Your task to perform on an android device: Open the calendar app, open the side menu, and click the "Day" option Image 0: 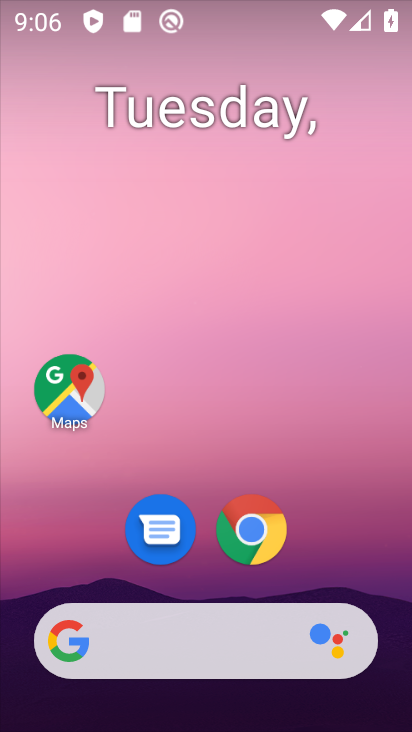
Step 0: drag from (334, 584) to (355, 48)
Your task to perform on an android device: Open the calendar app, open the side menu, and click the "Day" option Image 1: 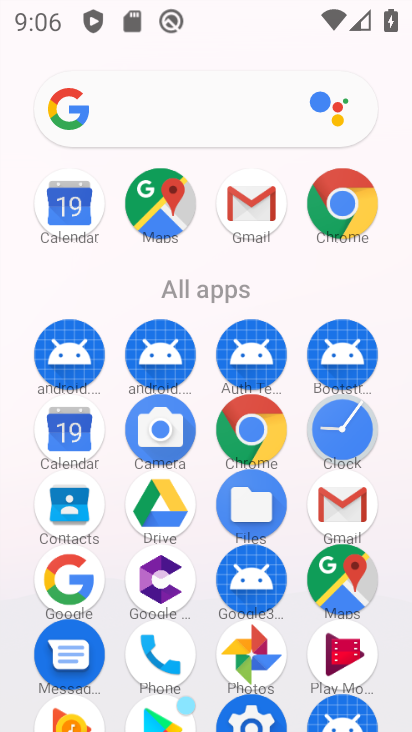
Step 1: click (66, 422)
Your task to perform on an android device: Open the calendar app, open the side menu, and click the "Day" option Image 2: 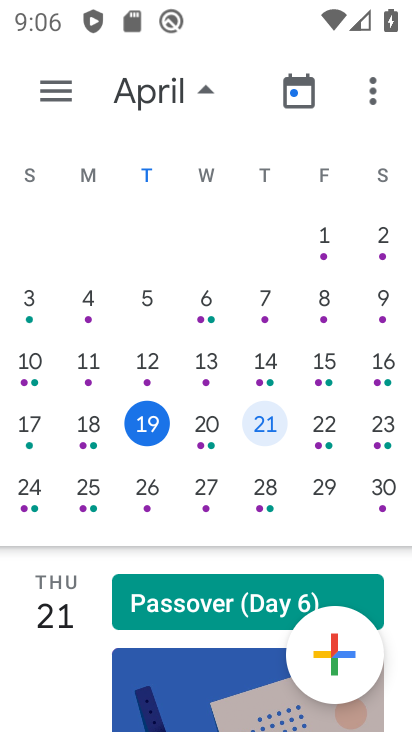
Step 2: click (67, 87)
Your task to perform on an android device: Open the calendar app, open the side menu, and click the "Day" option Image 3: 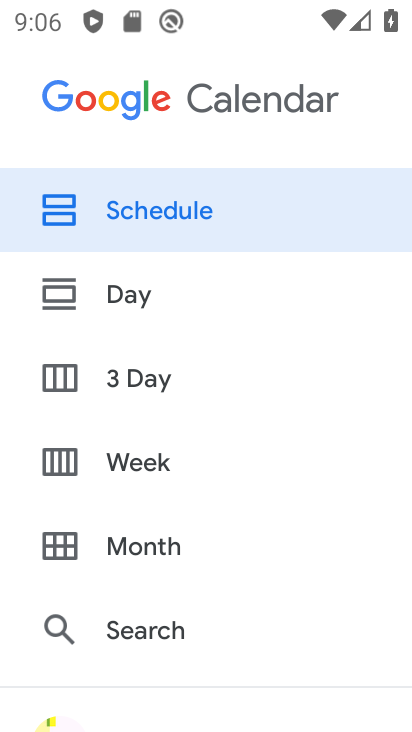
Step 3: click (152, 309)
Your task to perform on an android device: Open the calendar app, open the side menu, and click the "Day" option Image 4: 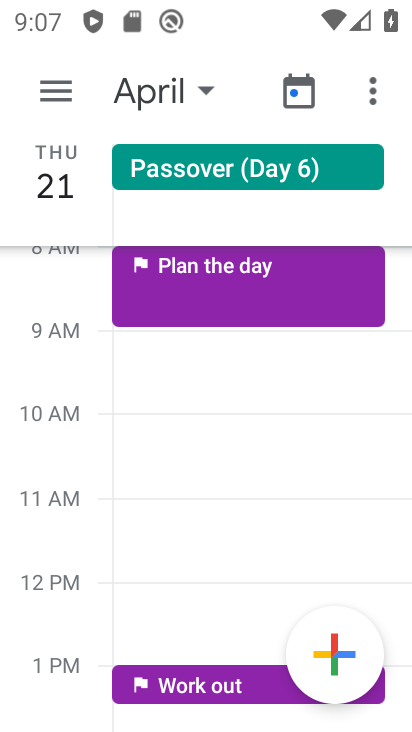
Step 4: task complete